Your task to perform on an android device: View the shopping cart on amazon. Image 0: 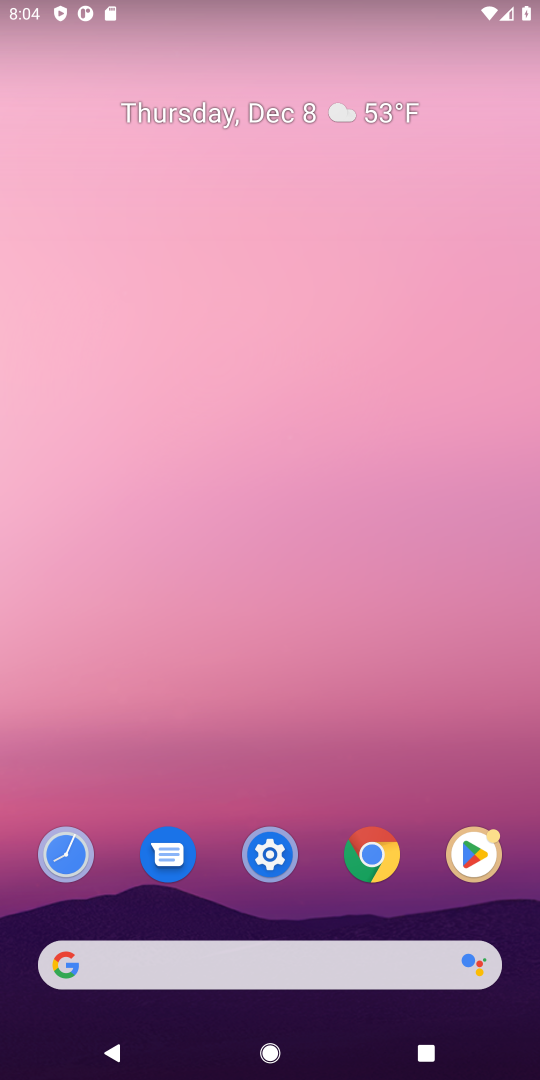
Step 0: press home button
Your task to perform on an android device: View the shopping cart on amazon. Image 1: 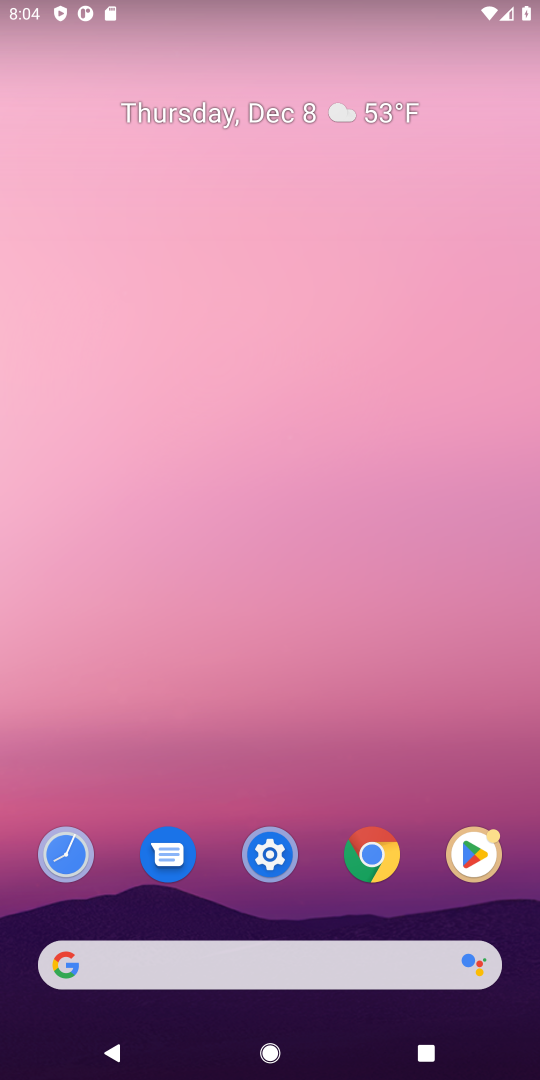
Step 1: click (100, 966)
Your task to perform on an android device: View the shopping cart on amazon. Image 2: 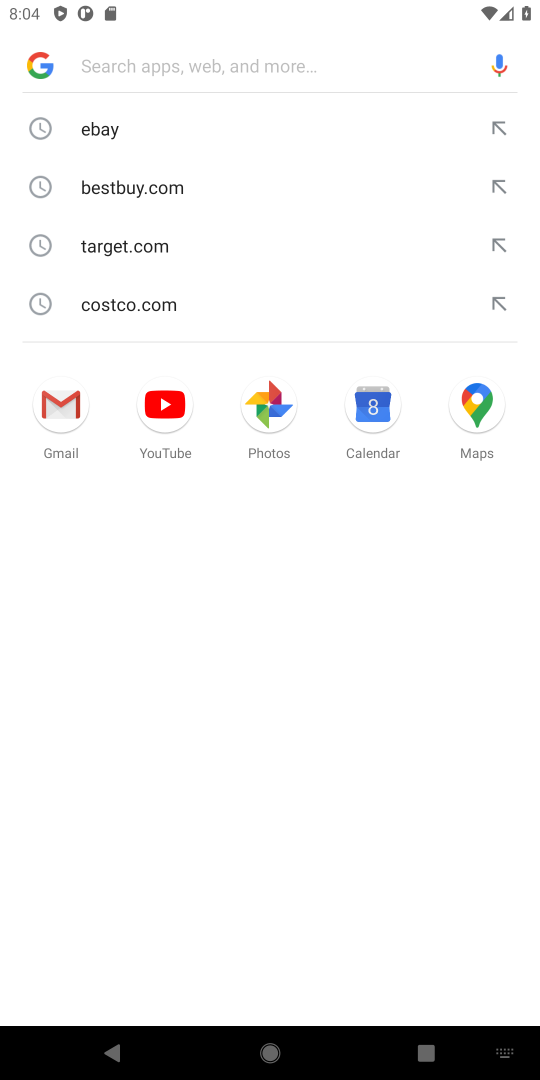
Step 2: type "amazon"
Your task to perform on an android device: View the shopping cart on amazon. Image 3: 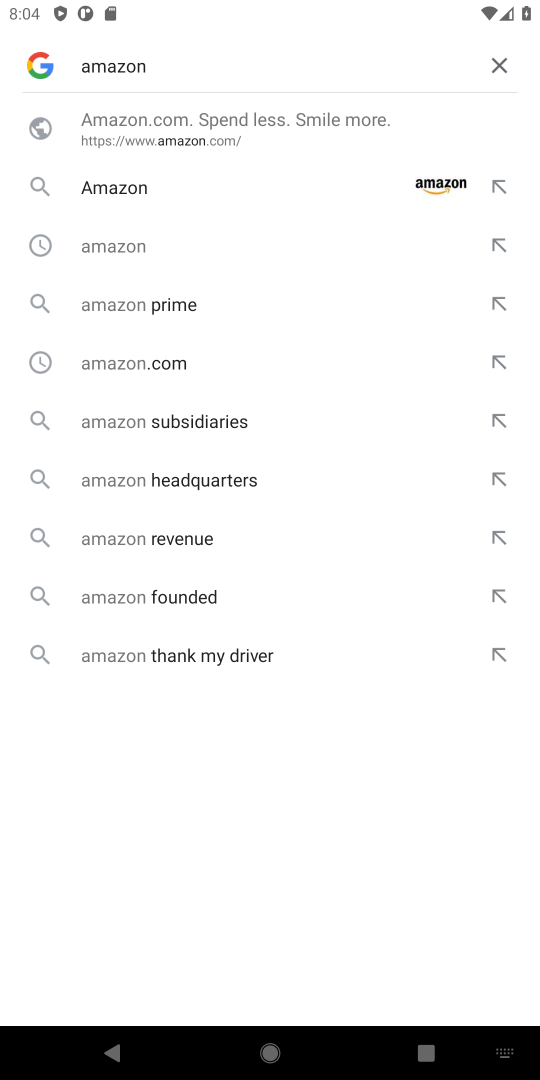
Step 3: press enter
Your task to perform on an android device: View the shopping cart on amazon. Image 4: 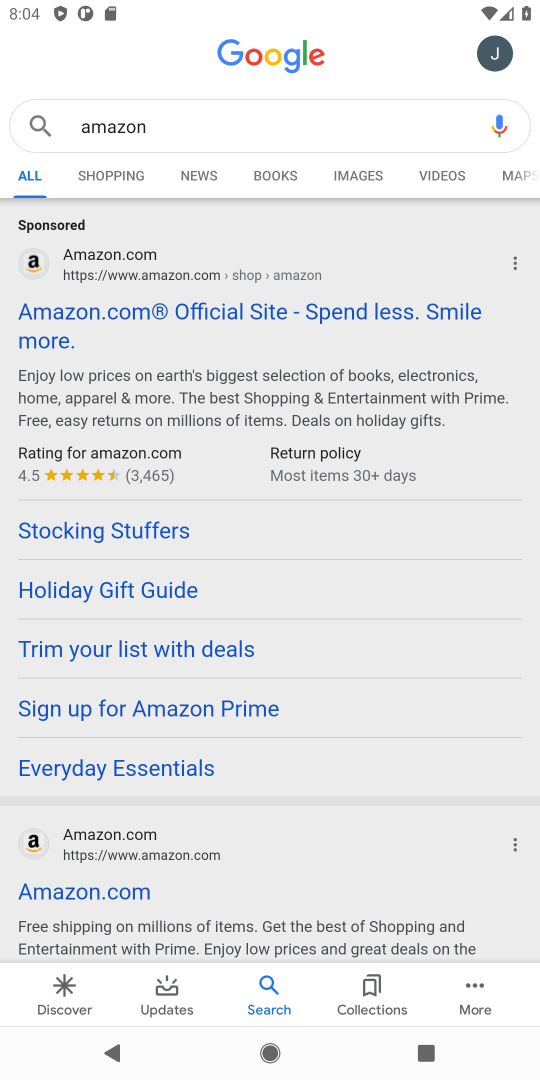
Step 4: click (359, 321)
Your task to perform on an android device: View the shopping cart on amazon. Image 5: 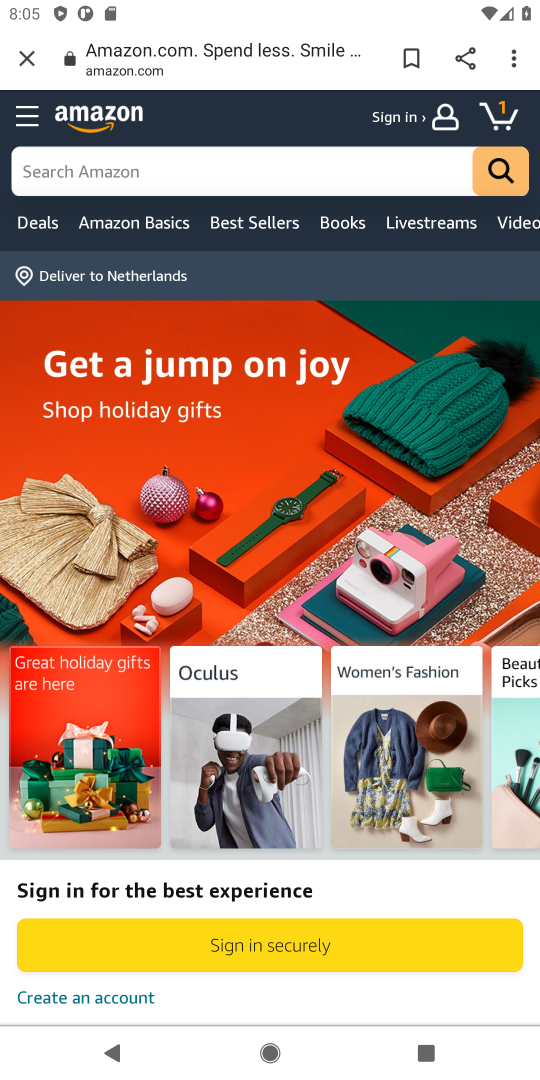
Step 5: click (494, 104)
Your task to perform on an android device: View the shopping cart on amazon. Image 6: 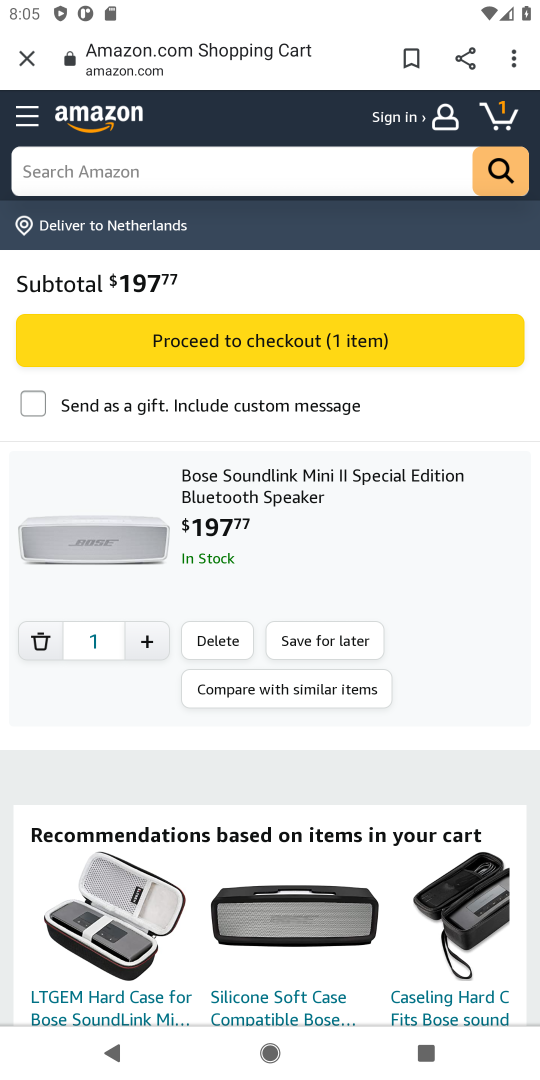
Step 6: task complete